Your task to perform on an android device: Add "razer blackwidow" to the cart on walmart.com Image 0: 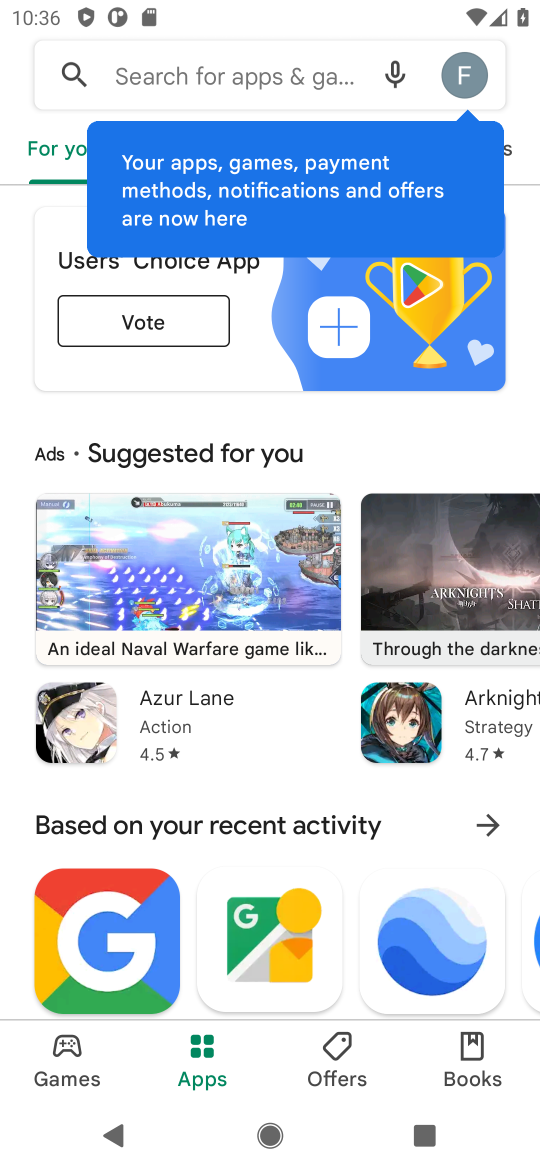
Step 0: press home button
Your task to perform on an android device: Add "razer blackwidow" to the cart on walmart.com Image 1: 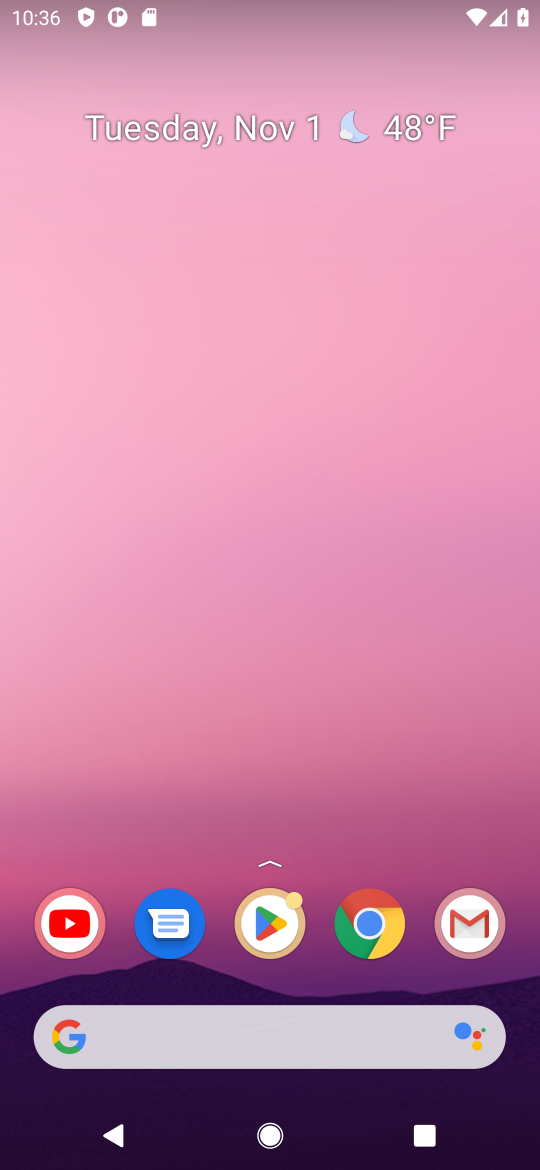
Step 1: click (358, 943)
Your task to perform on an android device: Add "razer blackwidow" to the cart on walmart.com Image 2: 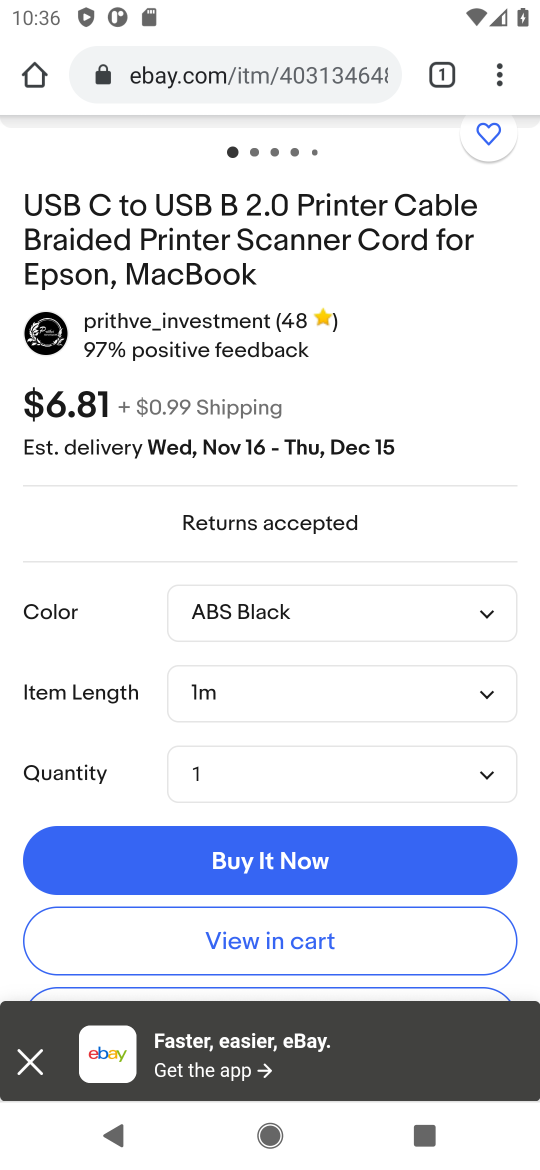
Step 2: click (252, 73)
Your task to perform on an android device: Add "razer blackwidow" to the cart on walmart.com Image 3: 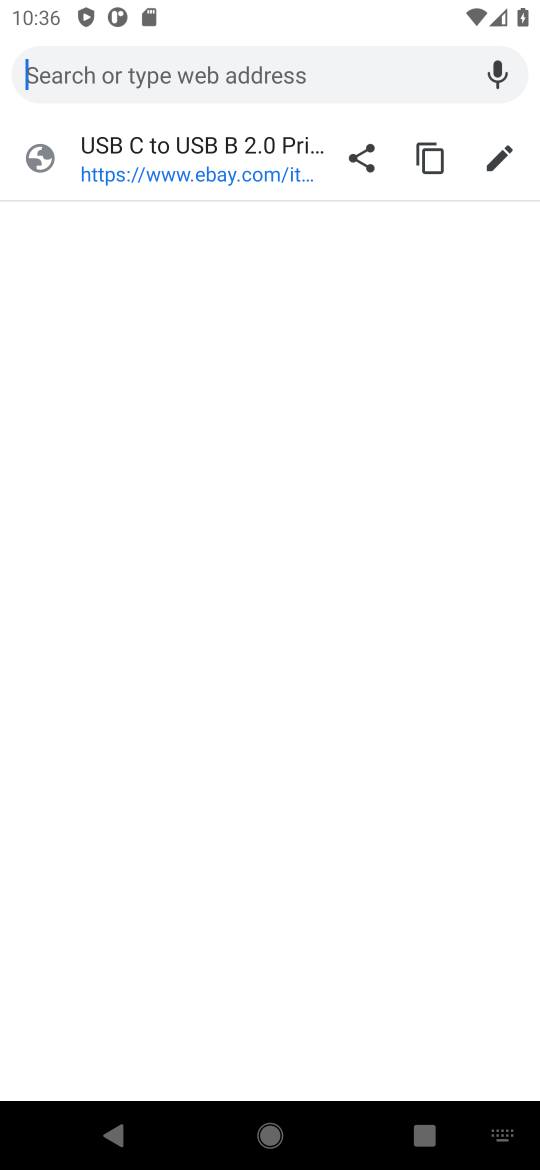
Step 3: type "walmart.com"
Your task to perform on an android device: Add "razer blackwidow" to the cart on walmart.com Image 4: 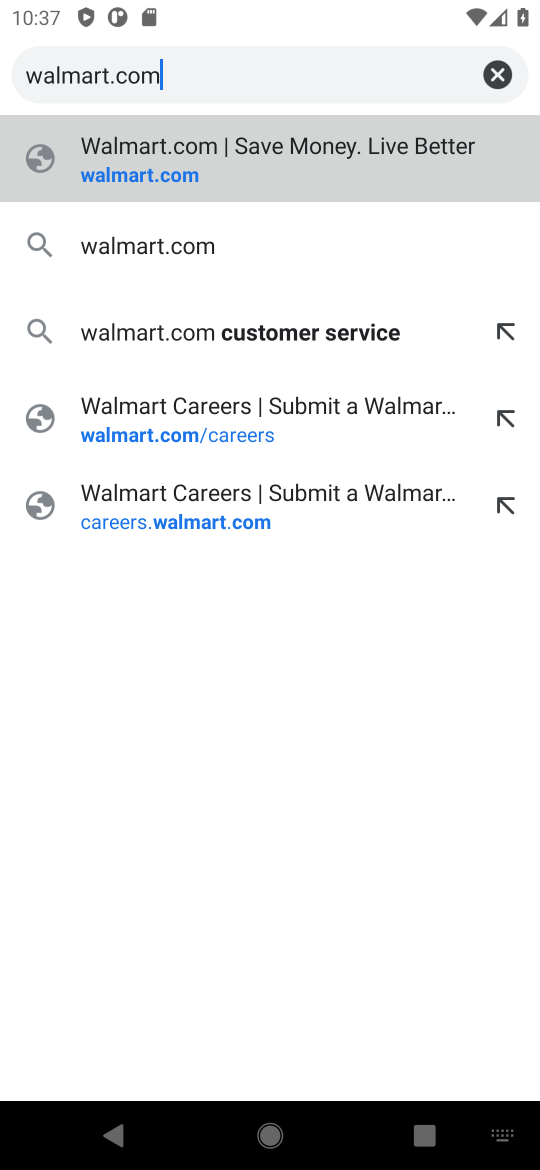
Step 4: click (286, 174)
Your task to perform on an android device: Add "razer blackwidow" to the cart on walmart.com Image 5: 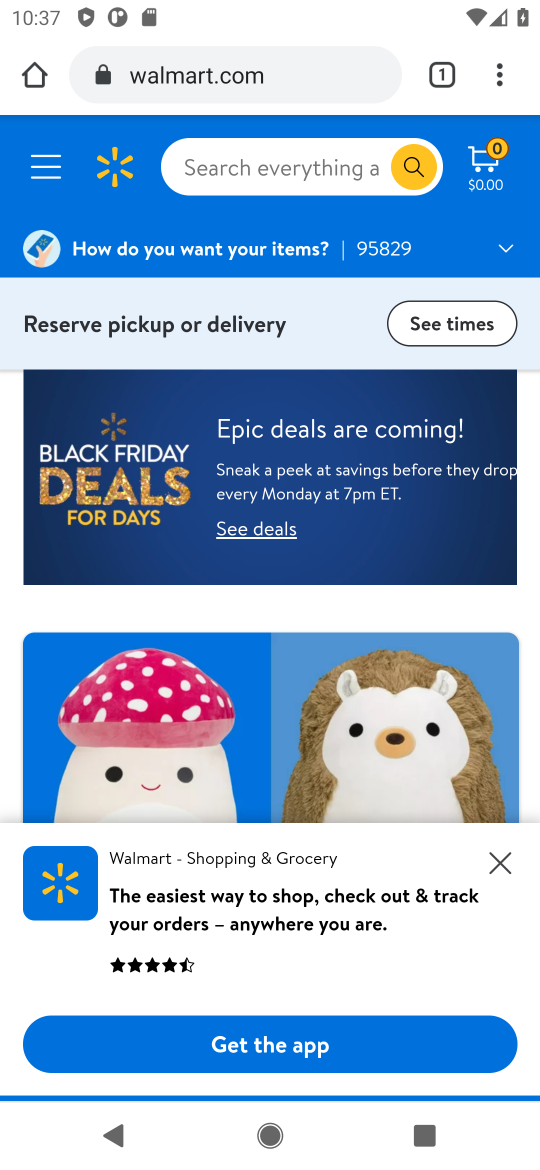
Step 5: click (302, 189)
Your task to perform on an android device: Add "razer blackwidow" to the cart on walmart.com Image 6: 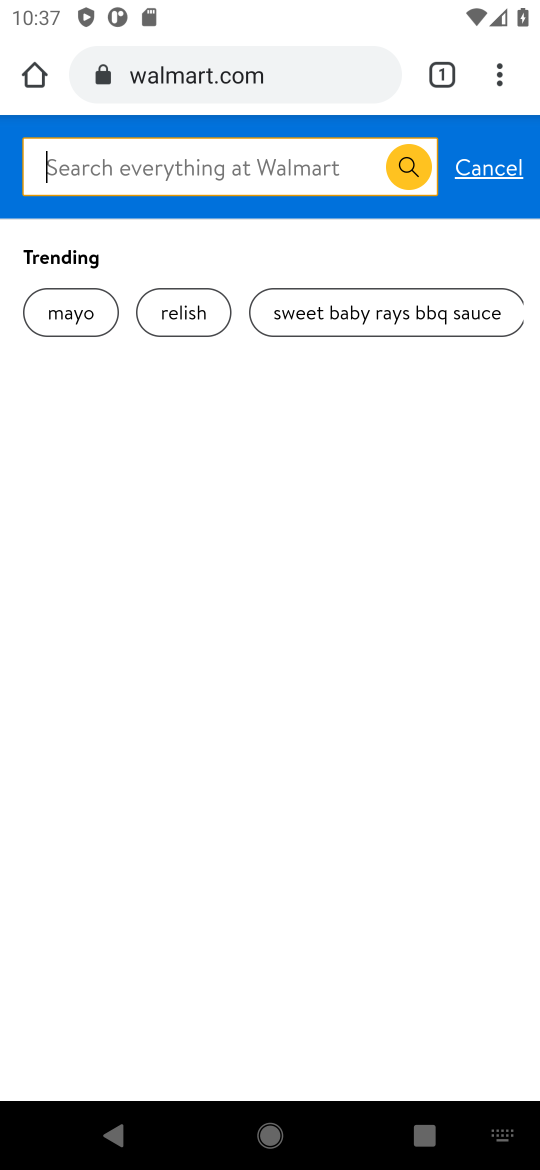
Step 6: type "razer blackwidow"
Your task to perform on an android device: Add "razer blackwidow" to the cart on walmart.com Image 7: 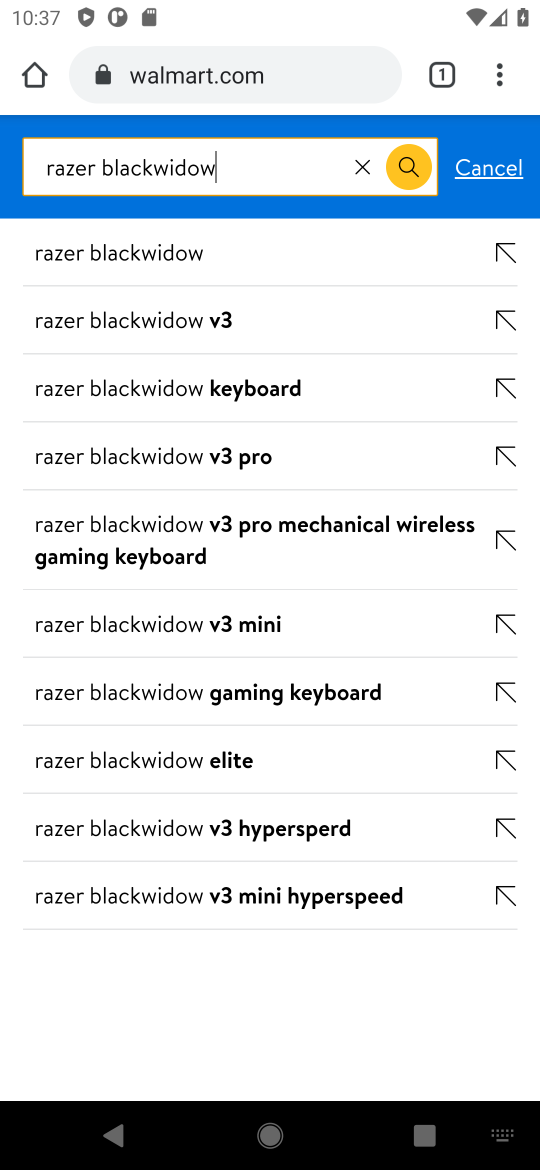
Step 7: press enter
Your task to perform on an android device: Add "razer blackwidow" to the cart on walmart.com Image 8: 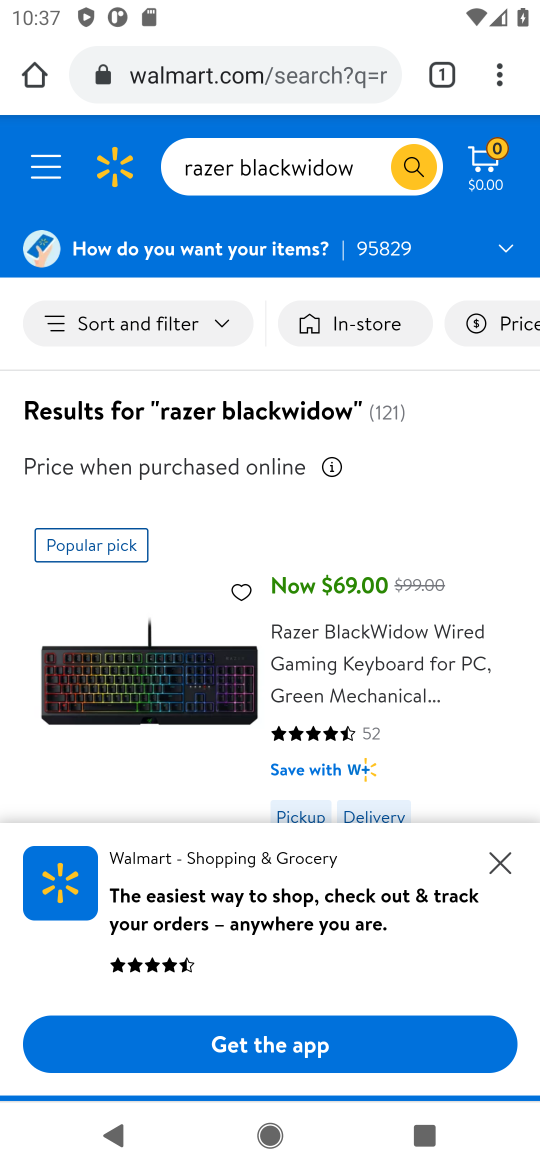
Step 8: click (232, 725)
Your task to perform on an android device: Add "razer blackwidow" to the cart on walmart.com Image 9: 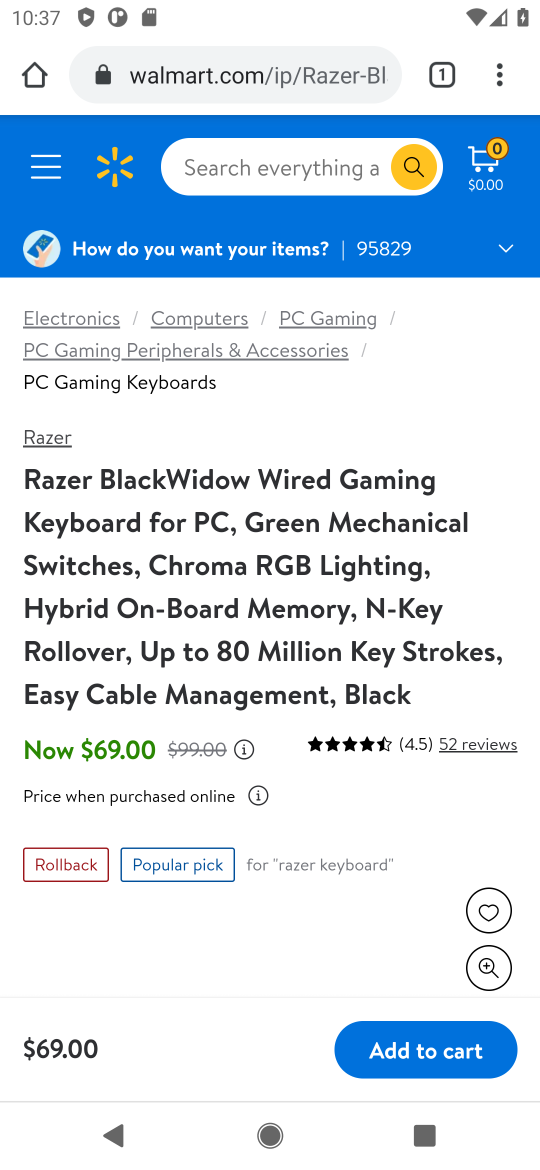
Step 9: click (436, 1055)
Your task to perform on an android device: Add "razer blackwidow" to the cart on walmart.com Image 10: 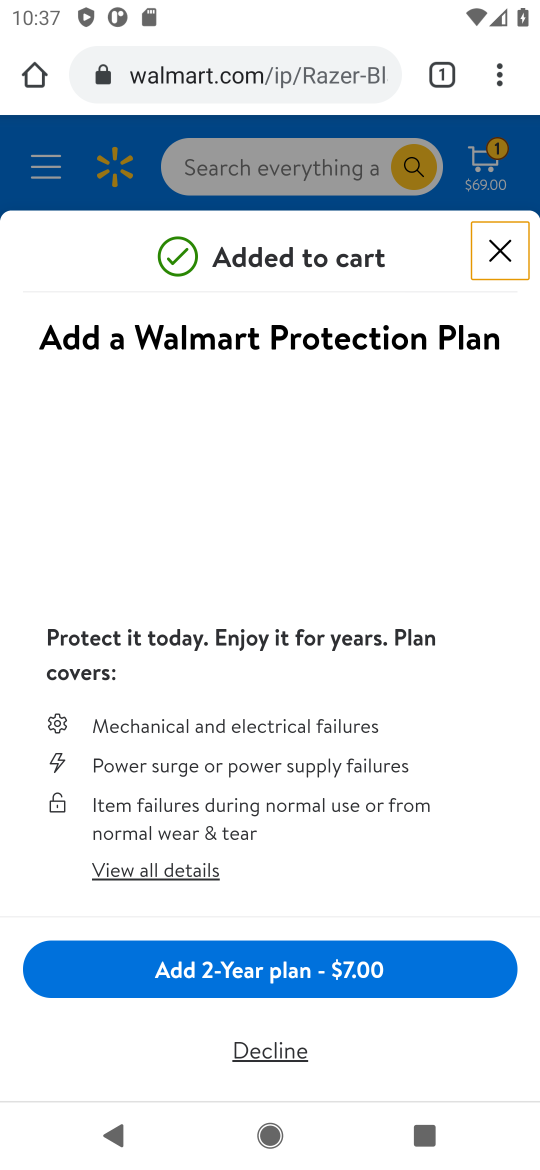
Step 10: click (436, 1055)
Your task to perform on an android device: Add "razer blackwidow" to the cart on walmart.com Image 11: 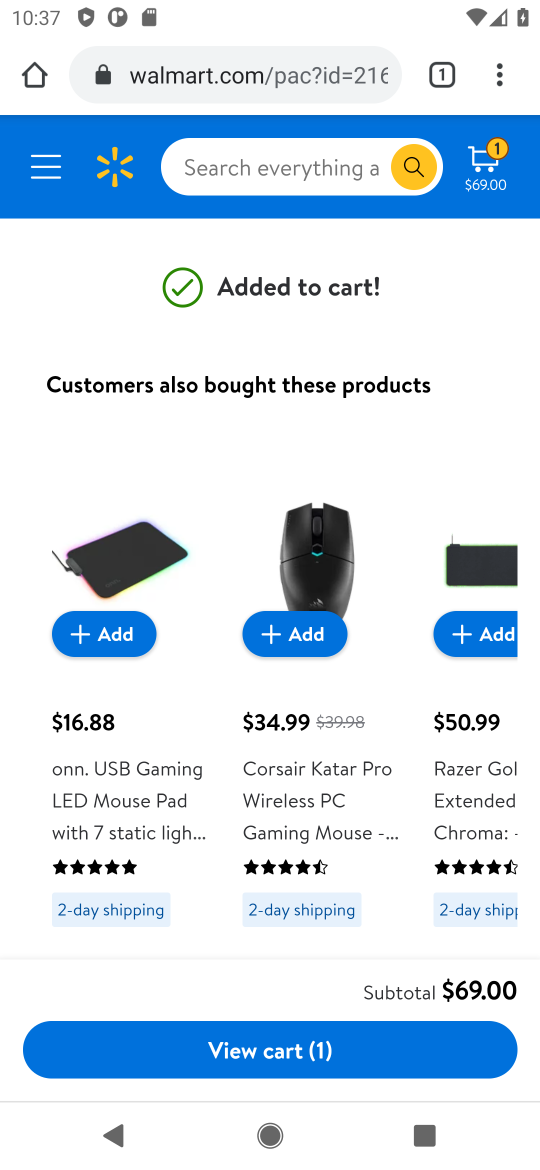
Step 11: task complete